Your task to perform on an android device: install app "Venmo" Image 0: 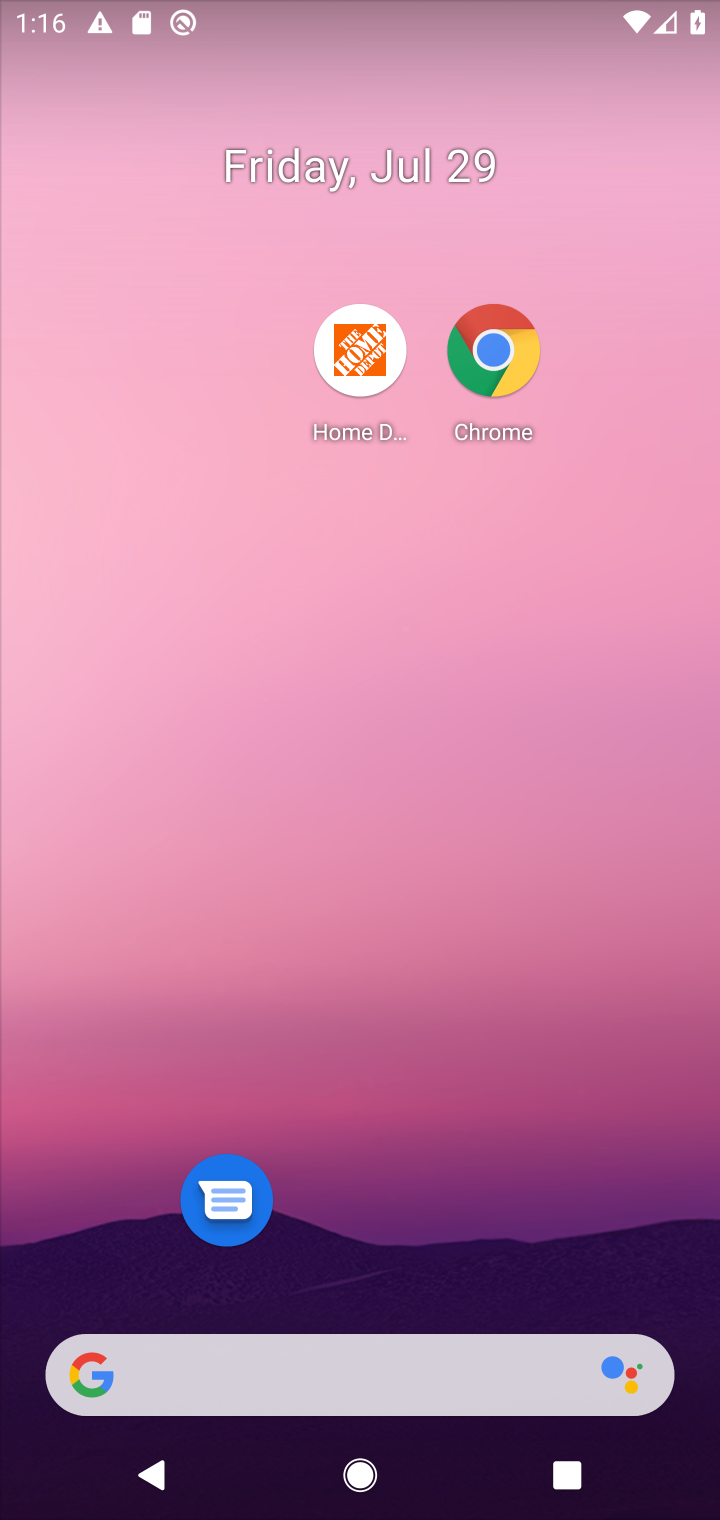
Step 0: press home button
Your task to perform on an android device: install app "Venmo" Image 1: 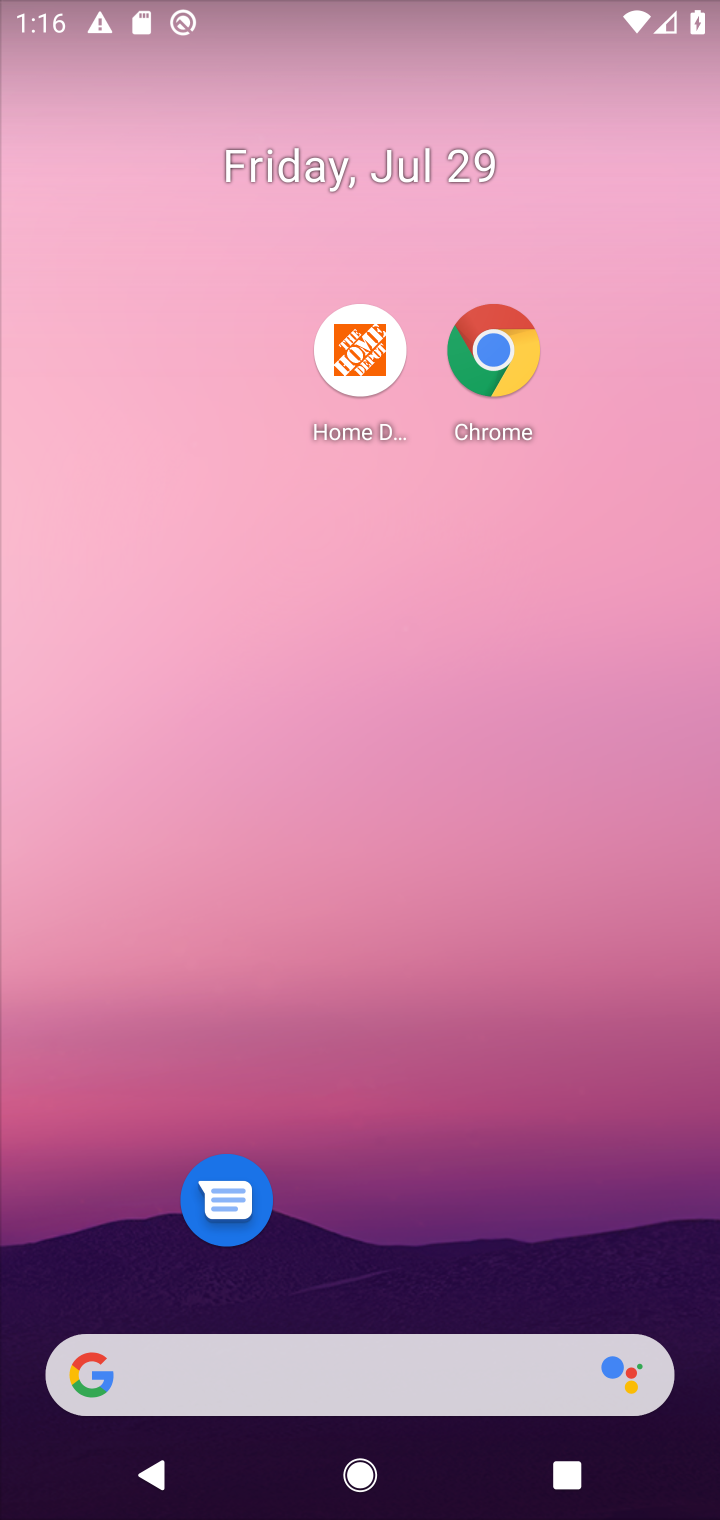
Step 1: drag from (509, 1010) to (428, 18)
Your task to perform on an android device: install app "Venmo" Image 2: 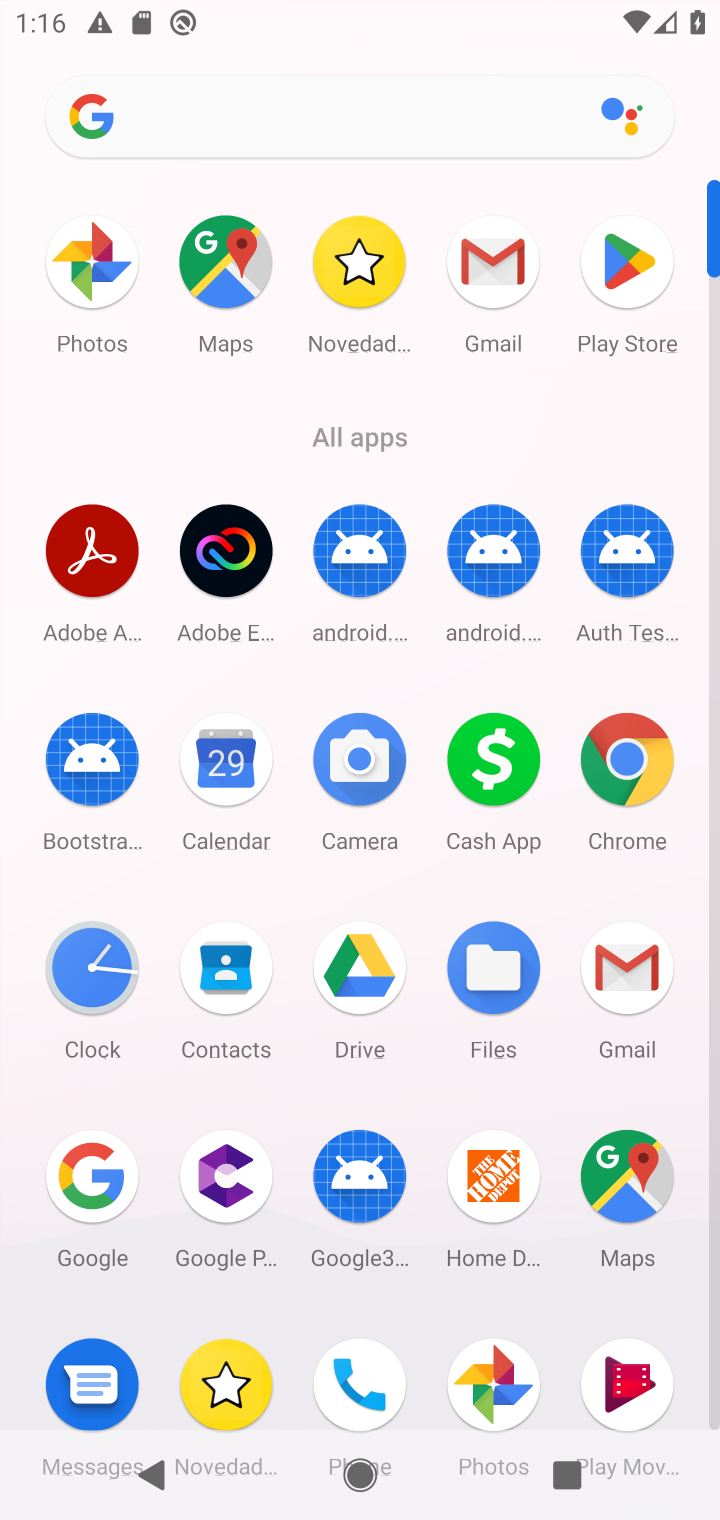
Step 2: click (641, 273)
Your task to perform on an android device: install app "Venmo" Image 3: 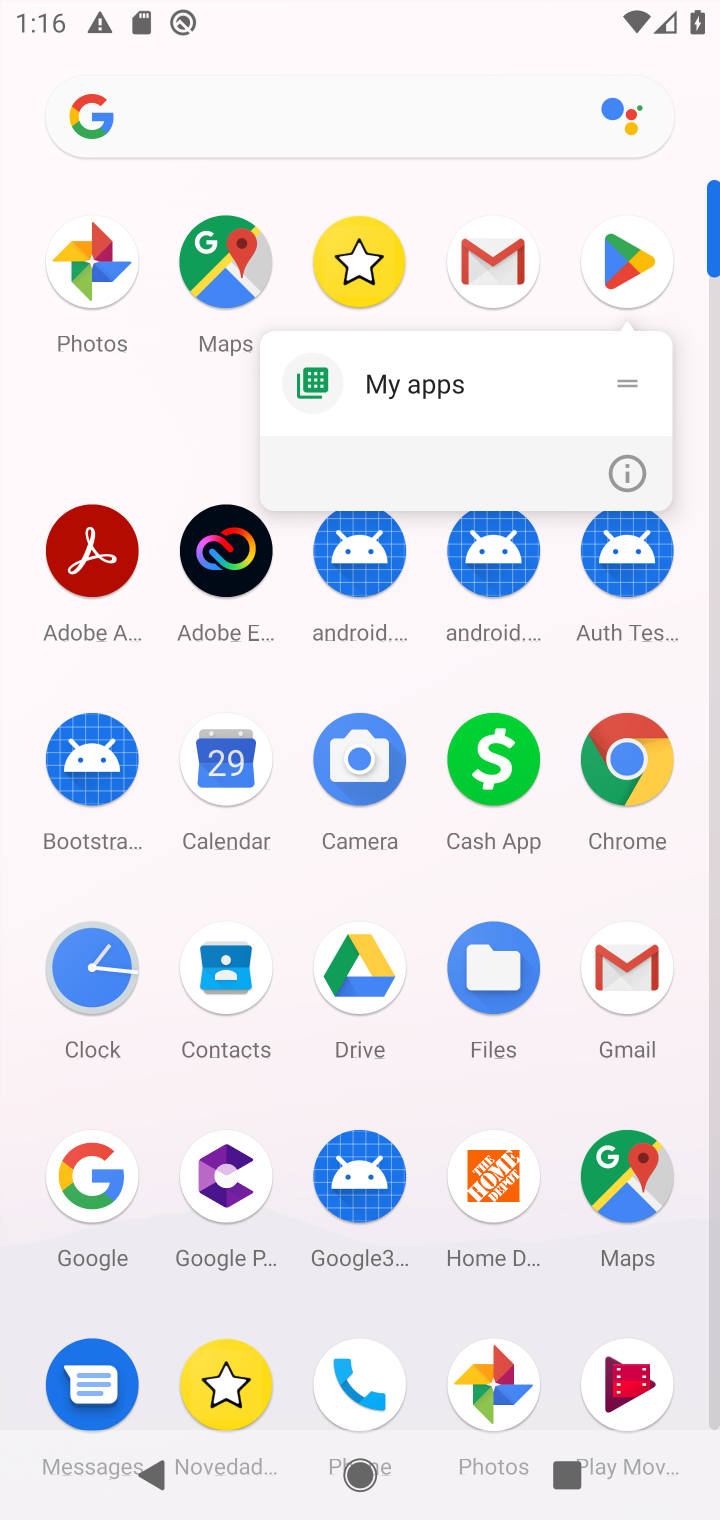
Step 3: click (631, 264)
Your task to perform on an android device: install app "Venmo" Image 4: 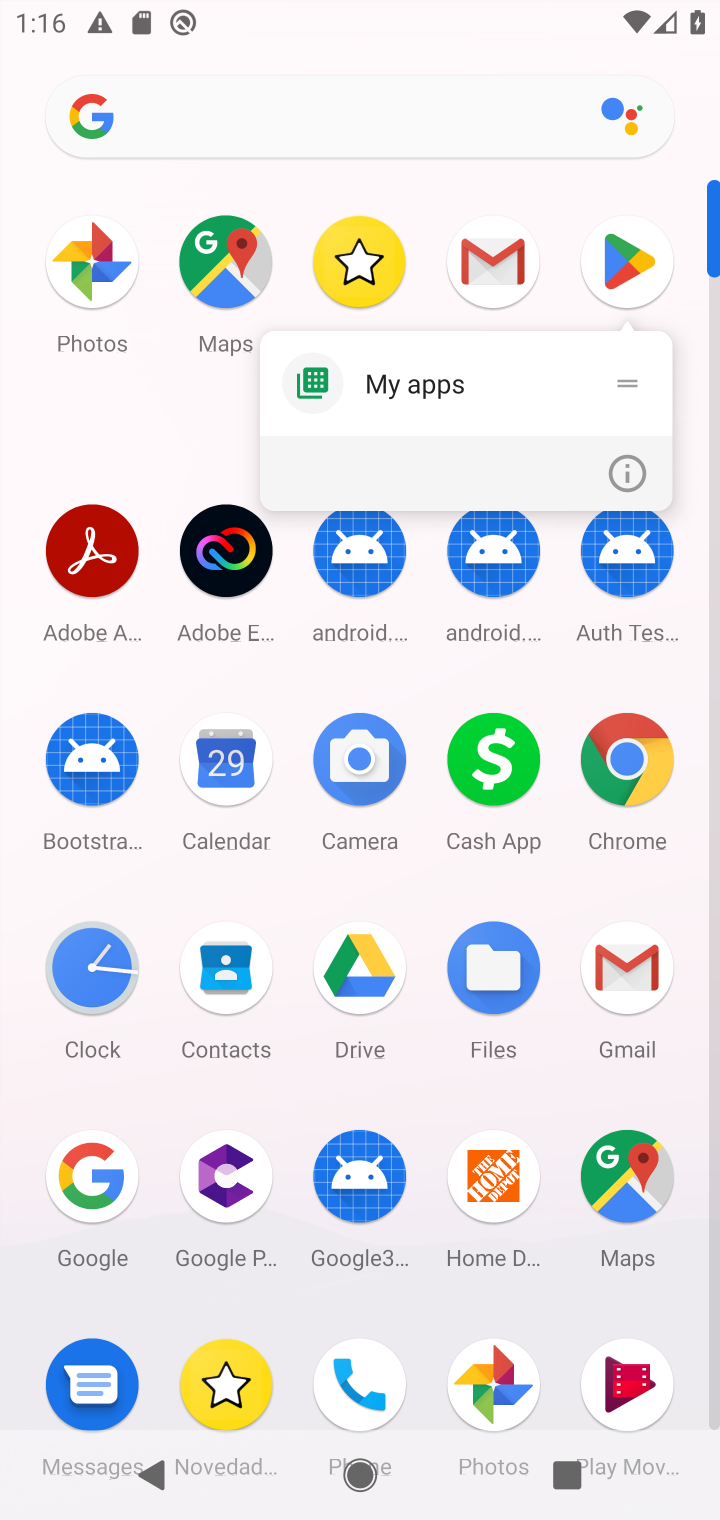
Step 4: click (617, 264)
Your task to perform on an android device: install app "Venmo" Image 5: 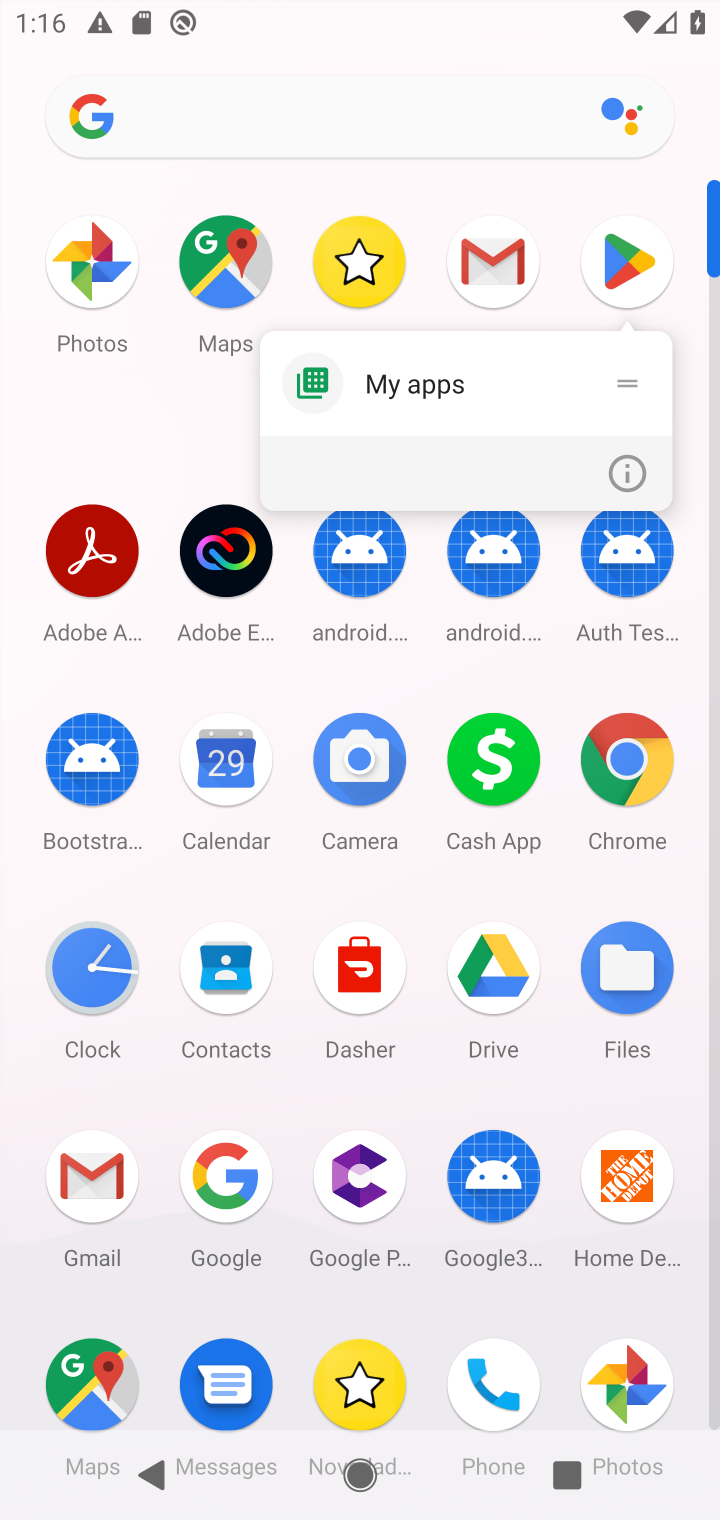
Step 5: click (628, 283)
Your task to perform on an android device: install app "Venmo" Image 6: 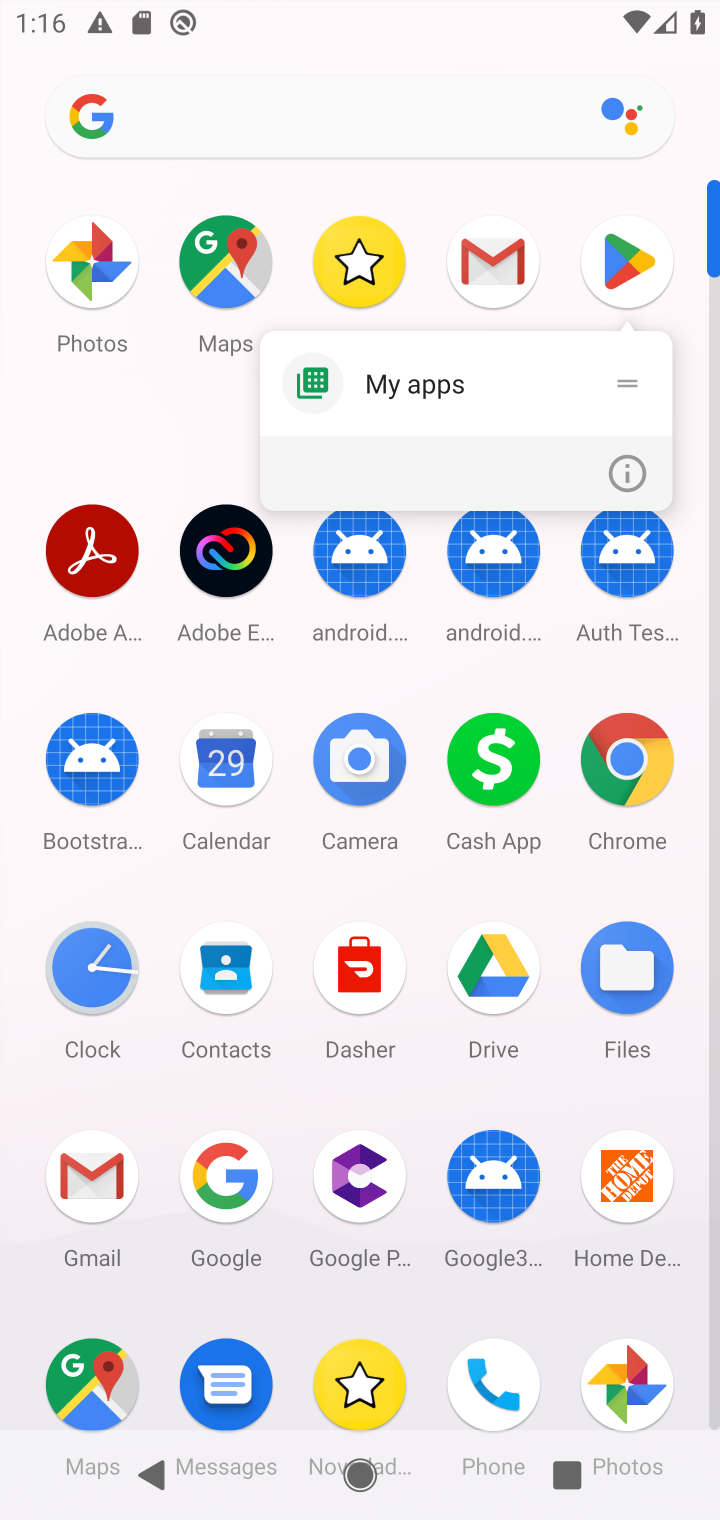
Step 6: click (626, 268)
Your task to perform on an android device: install app "Venmo" Image 7: 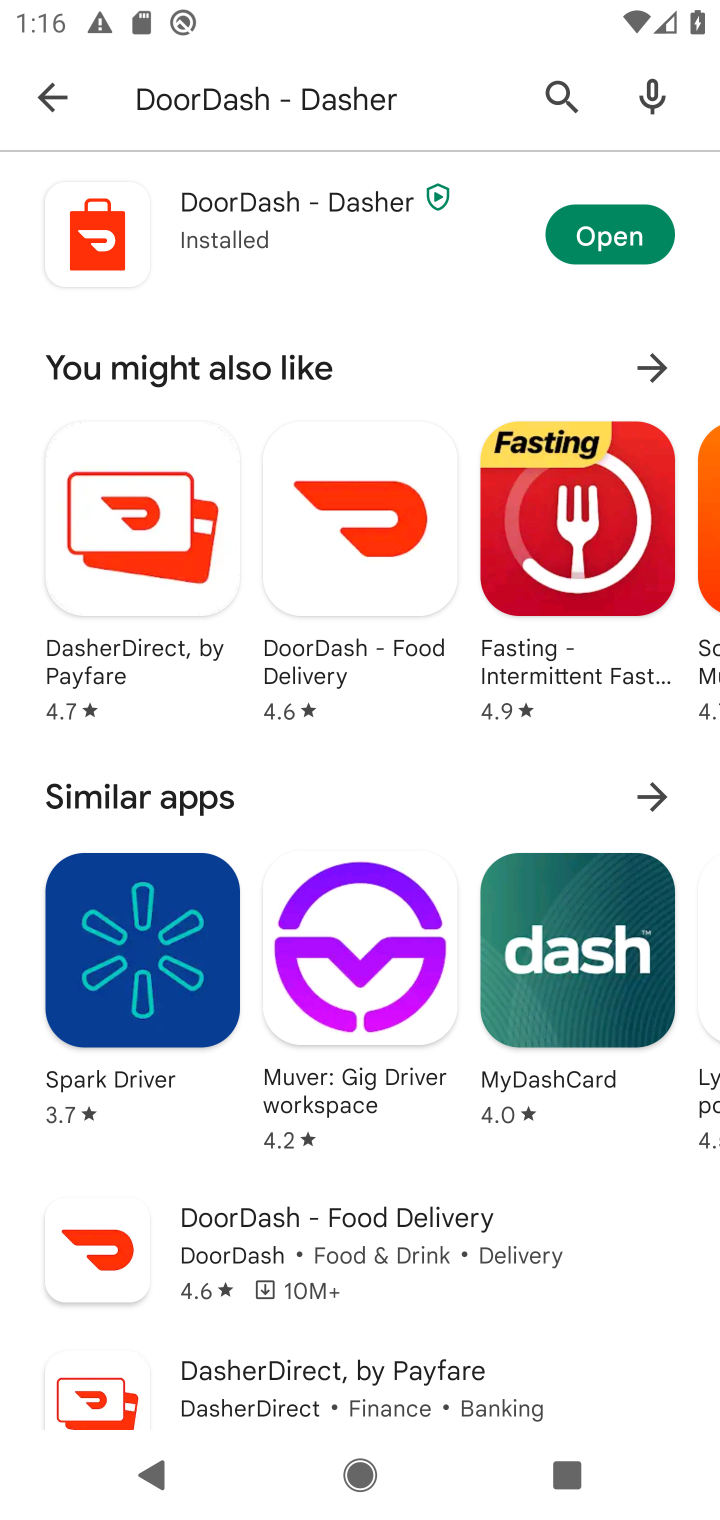
Step 7: click (362, 106)
Your task to perform on an android device: install app "Venmo" Image 8: 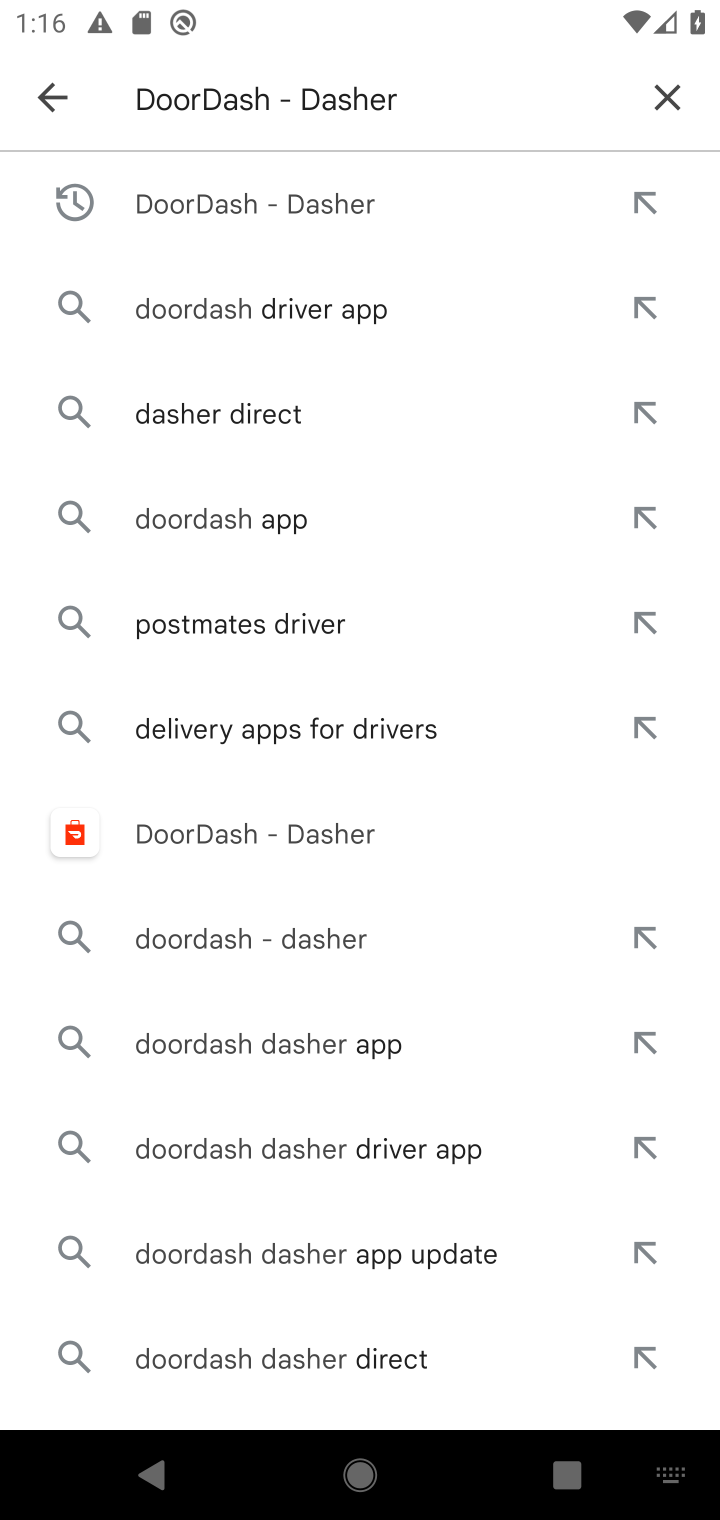
Step 8: click (661, 80)
Your task to perform on an android device: install app "Venmo" Image 9: 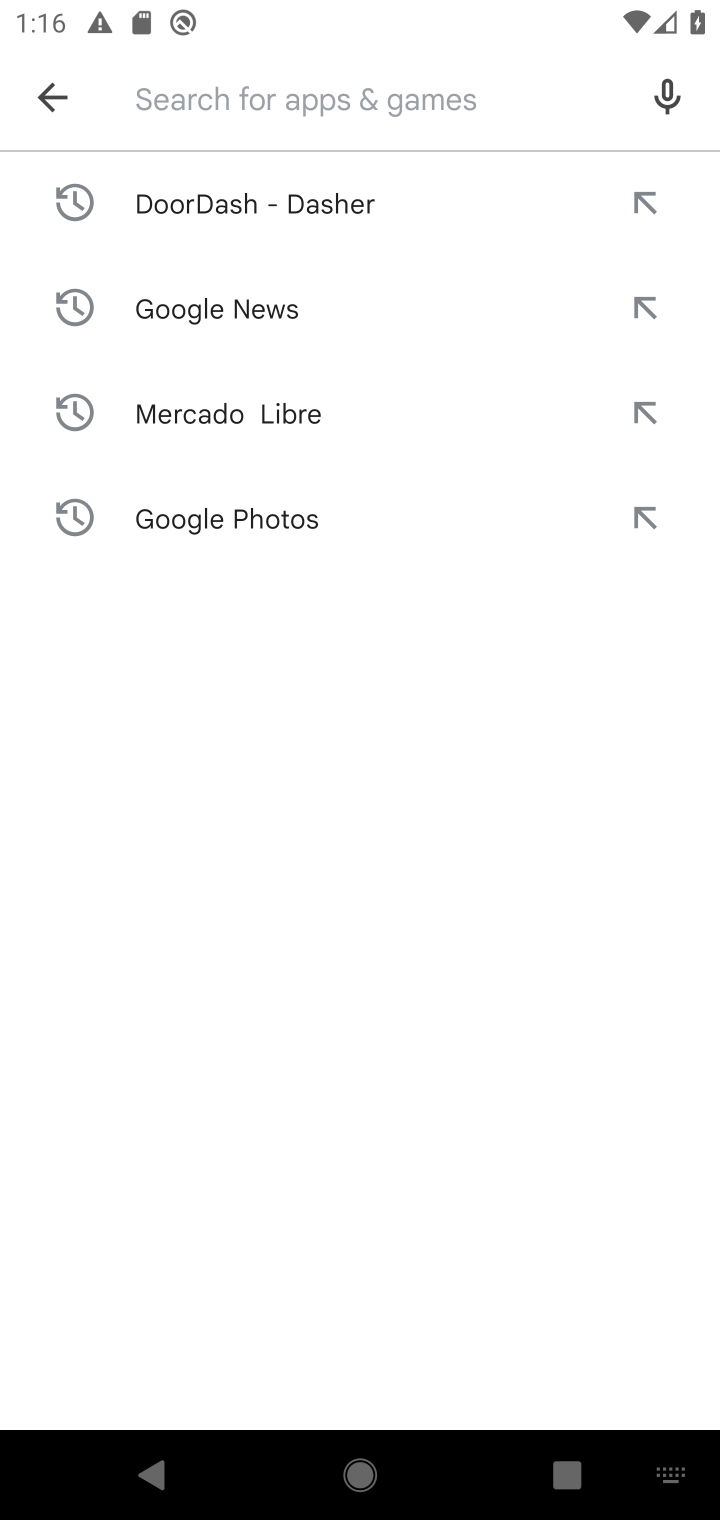
Step 9: type "Venmo"
Your task to perform on an android device: install app "Venmo" Image 10: 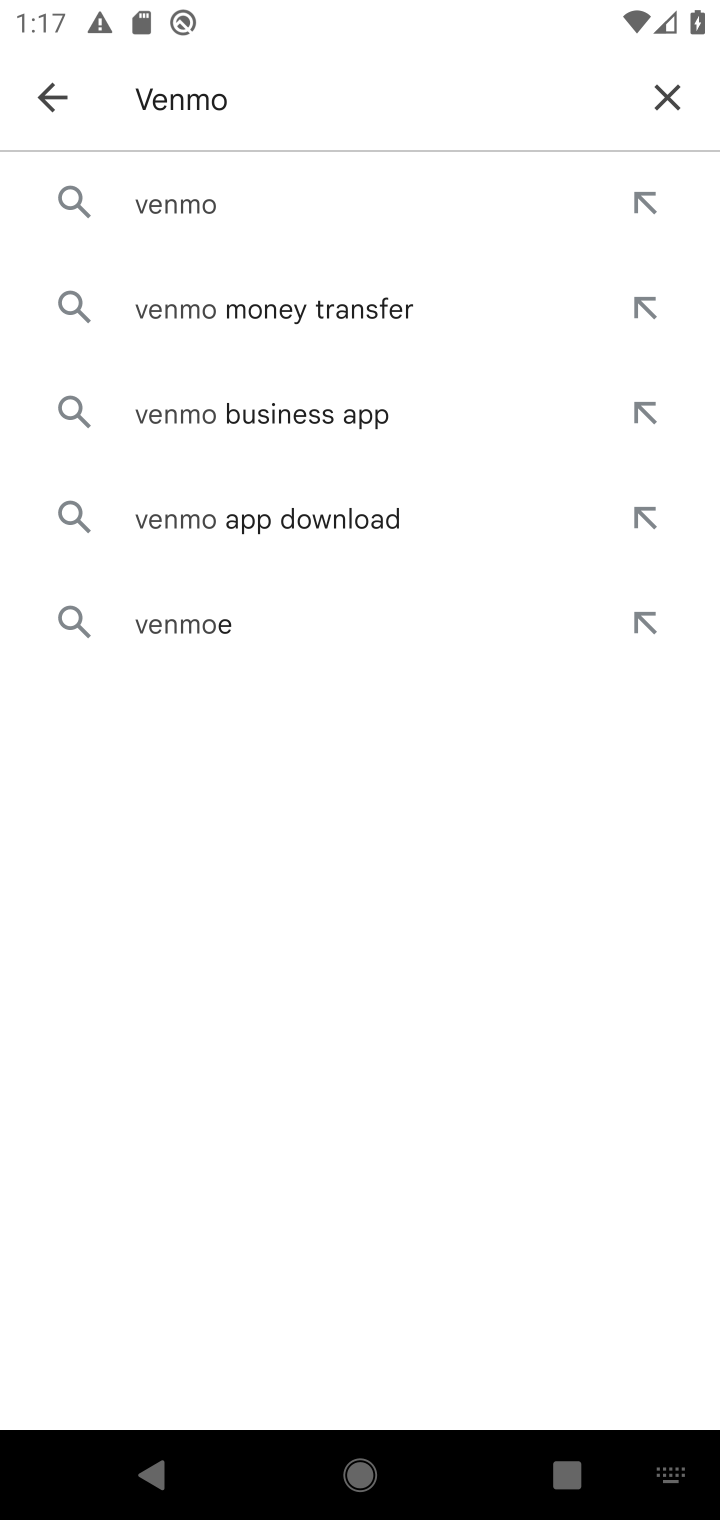
Step 10: press enter
Your task to perform on an android device: install app "Venmo" Image 11: 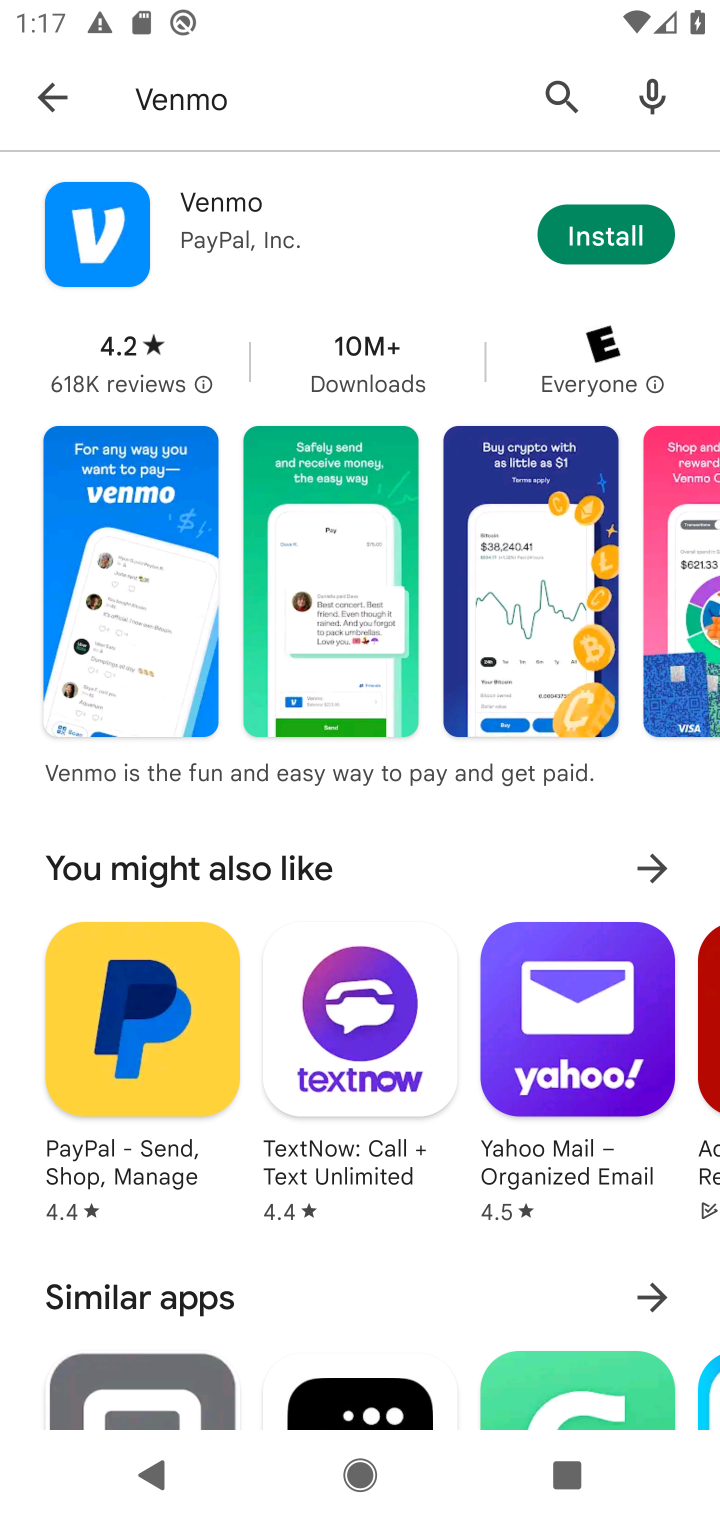
Step 11: click (636, 242)
Your task to perform on an android device: install app "Venmo" Image 12: 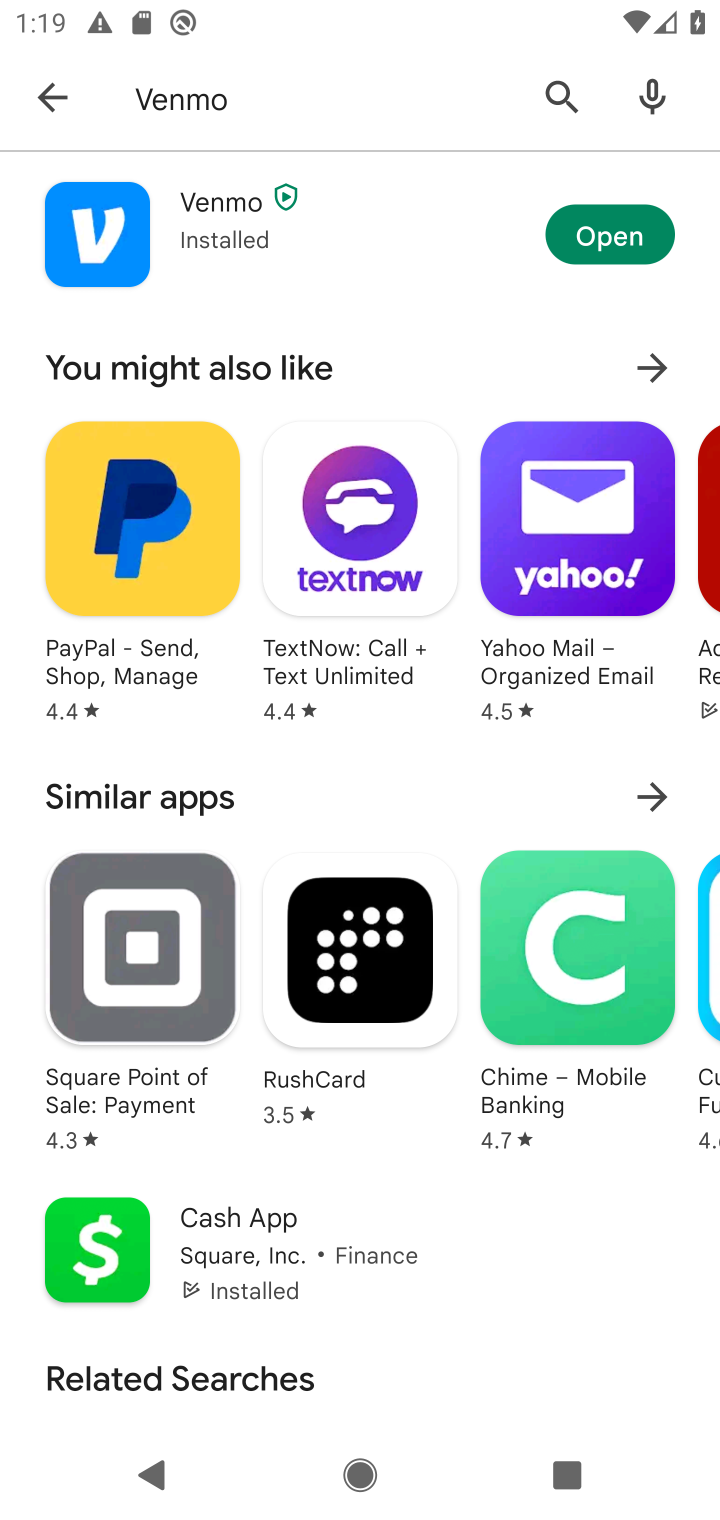
Step 12: task complete